Your task to perform on an android device: Open settings Image 0: 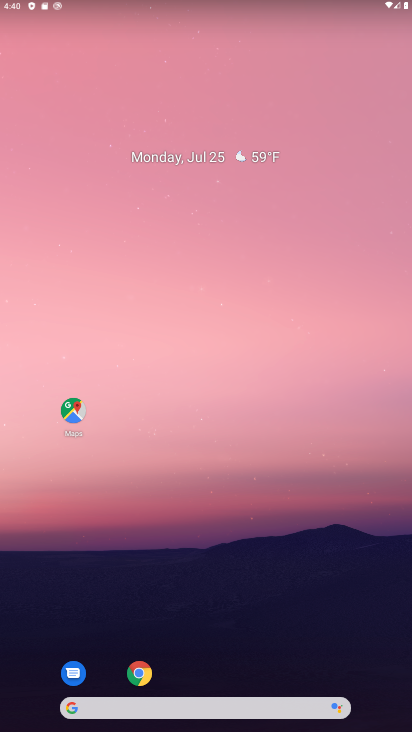
Step 0: press back button
Your task to perform on an android device: Open settings Image 1: 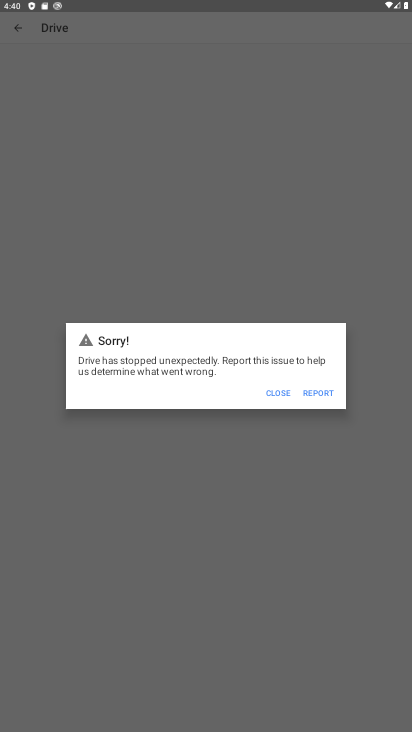
Step 1: press back button
Your task to perform on an android device: Open settings Image 2: 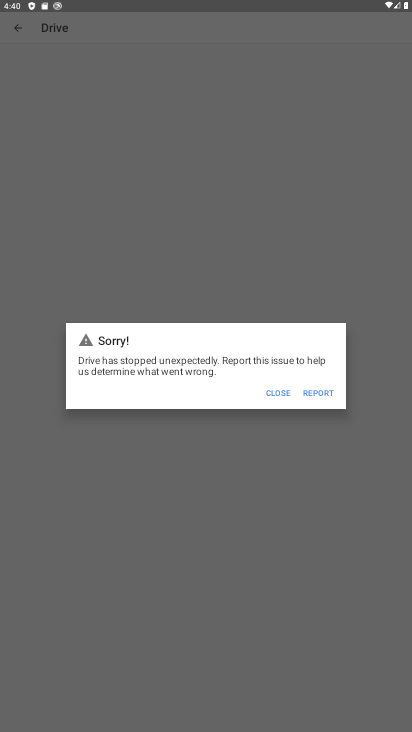
Step 2: press home button
Your task to perform on an android device: Open settings Image 3: 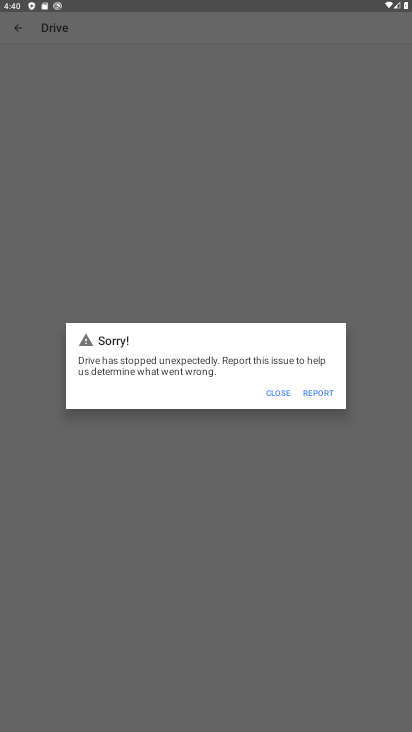
Step 3: press home button
Your task to perform on an android device: Open settings Image 4: 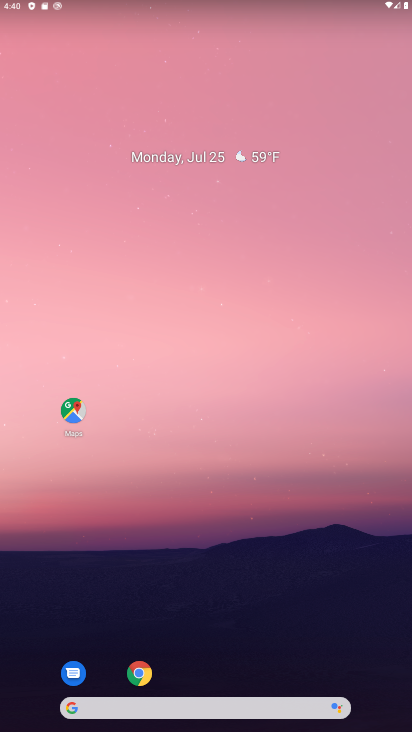
Step 4: click (281, 388)
Your task to perform on an android device: Open settings Image 5: 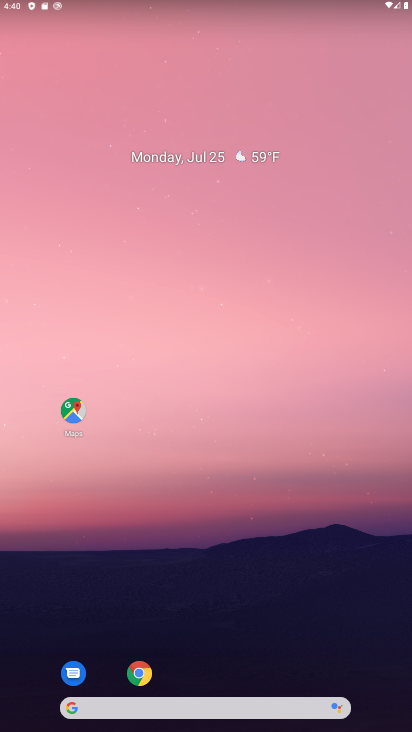
Step 5: drag from (236, 520) to (225, 108)
Your task to perform on an android device: Open settings Image 6: 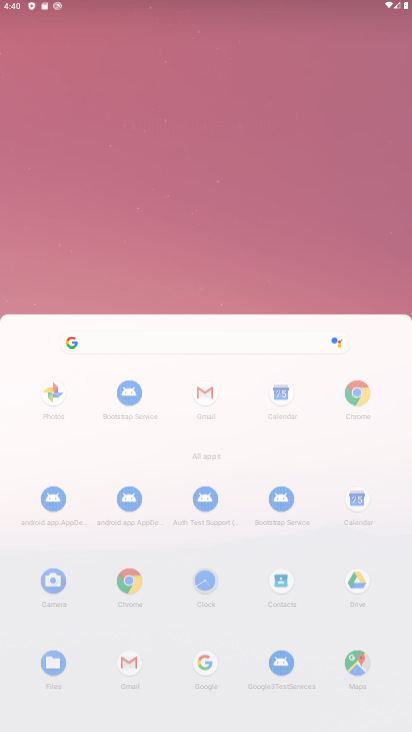
Step 6: drag from (264, 514) to (257, 17)
Your task to perform on an android device: Open settings Image 7: 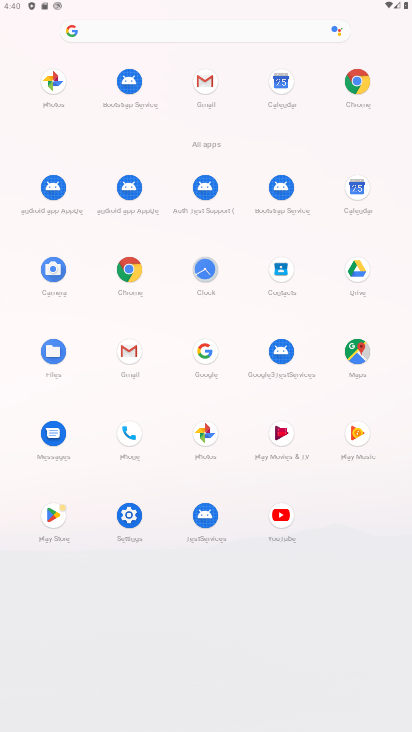
Step 7: drag from (191, 581) to (186, 30)
Your task to perform on an android device: Open settings Image 8: 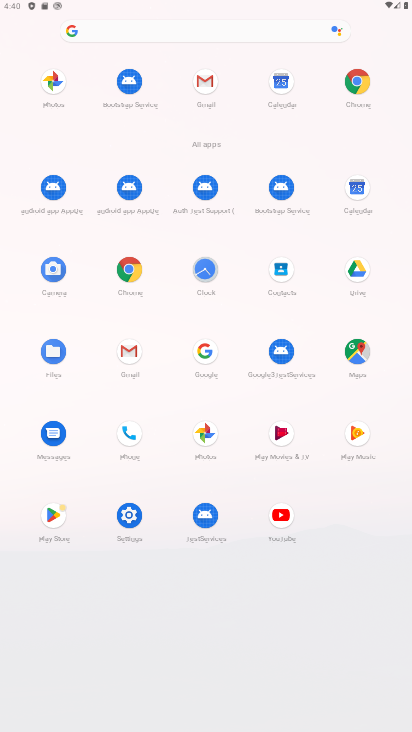
Step 8: click (123, 520)
Your task to perform on an android device: Open settings Image 9: 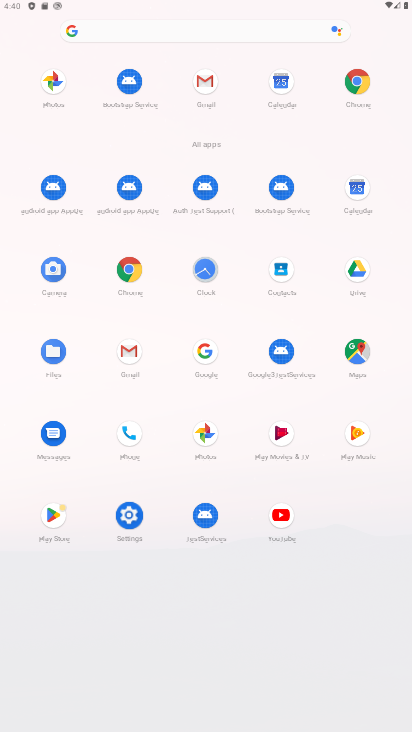
Step 9: click (154, 540)
Your task to perform on an android device: Open settings Image 10: 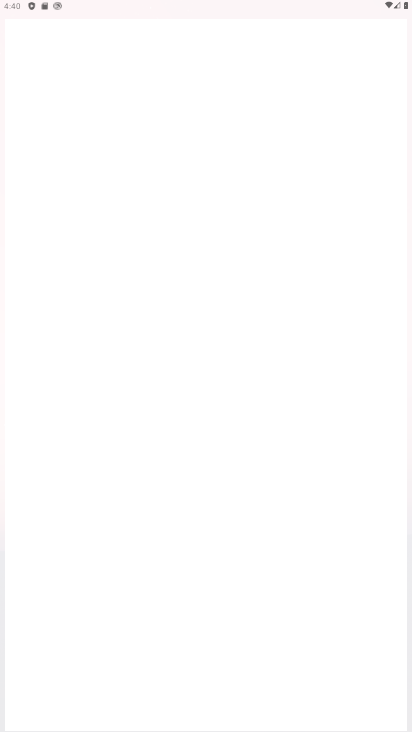
Step 10: click (154, 540)
Your task to perform on an android device: Open settings Image 11: 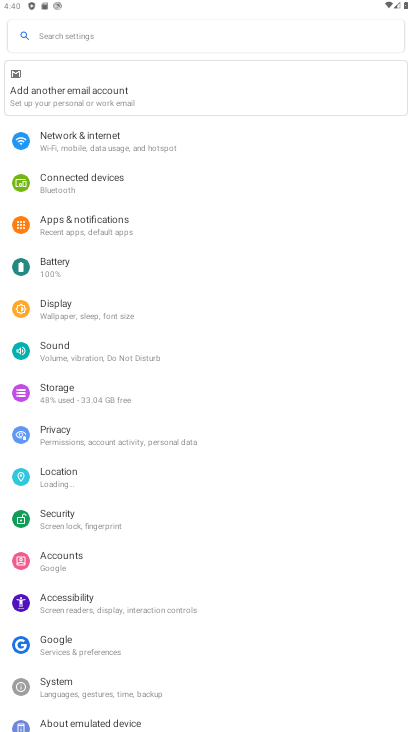
Step 11: task complete